Your task to perform on an android device: Open Reddit.com Image 0: 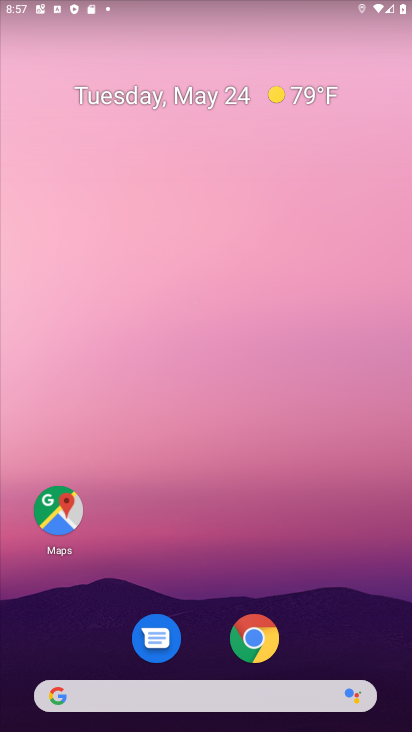
Step 0: click (192, 700)
Your task to perform on an android device: Open Reddit.com Image 1: 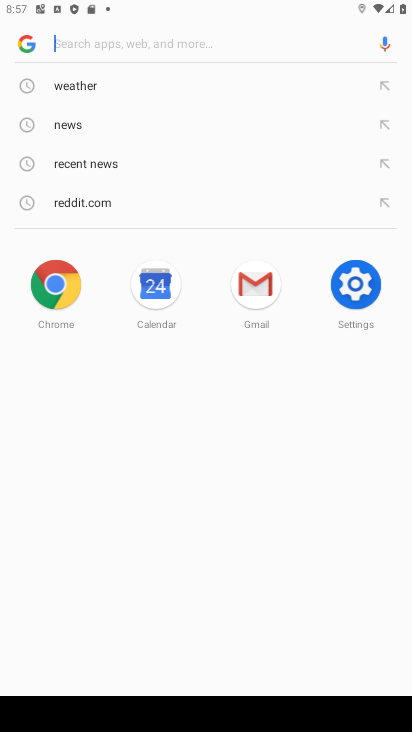
Step 1: click (81, 197)
Your task to perform on an android device: Open Reddit.com Image 2: 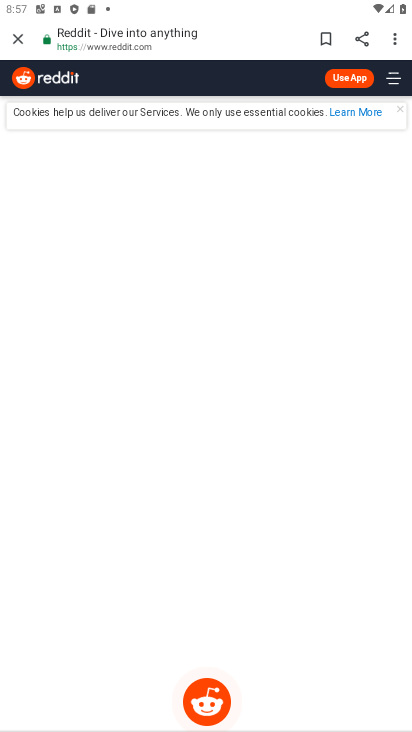
Step 2: task complete